Your task to perform on an android device: turn on showing notifications on the lock screen Image 0: 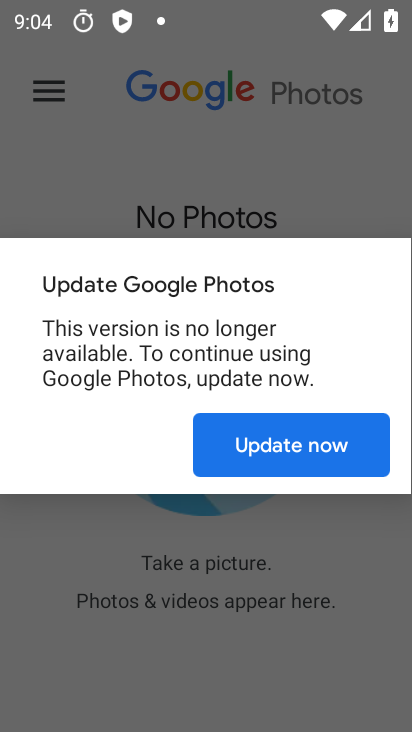
Step 0: press home button
Your task to perform on an android device: turn on showing notifications on the lock screen Image 1: 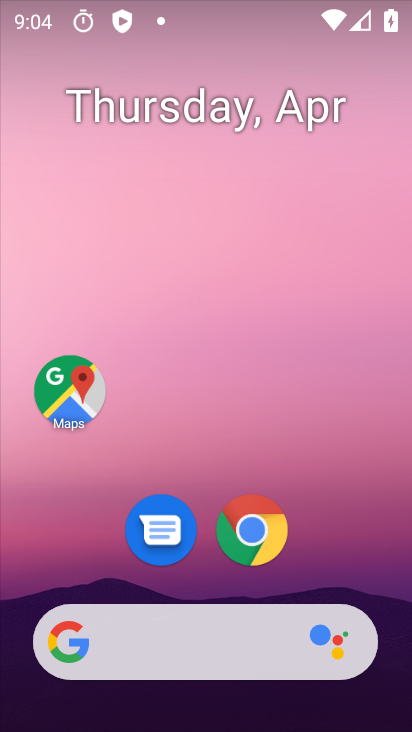
Step 1: drag from (374, 557) to (309, 111)
Your task to perform on an android device: turn on showing notifications on the lock screen Image 2: 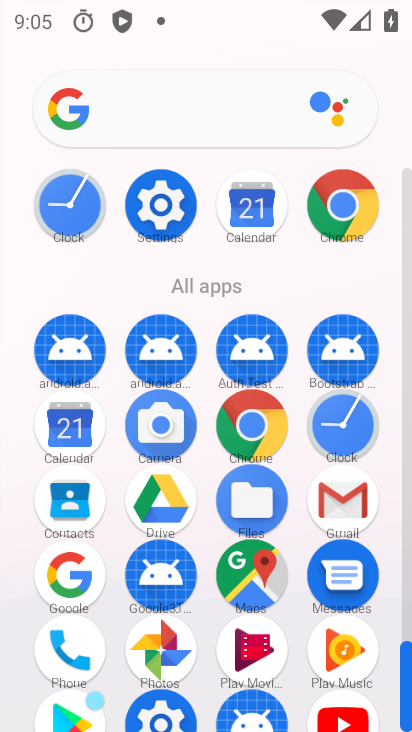
Step 2: click (158, 204)
Your task to perform on an android device: turn on showing notifications on the lock screen Image 3: 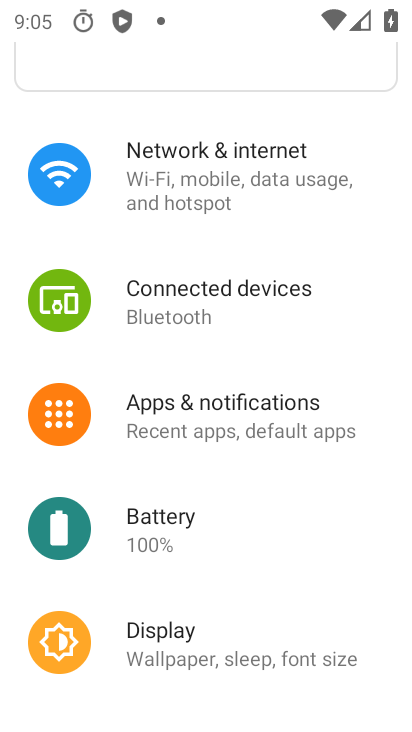
Step 3: click (247, 415)
Your task to perform on an android device: turn on showing notifications on the lock screen Image 4: 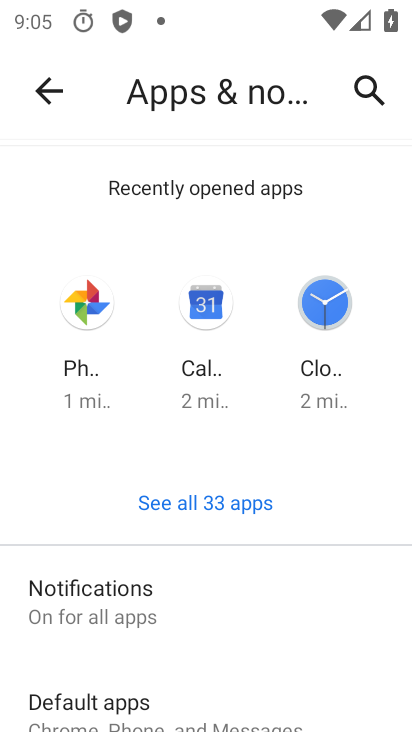
Step 4: click (117, 599)
Your task to perform on an android device: turn on showing notifications on the lock screen Image 5: 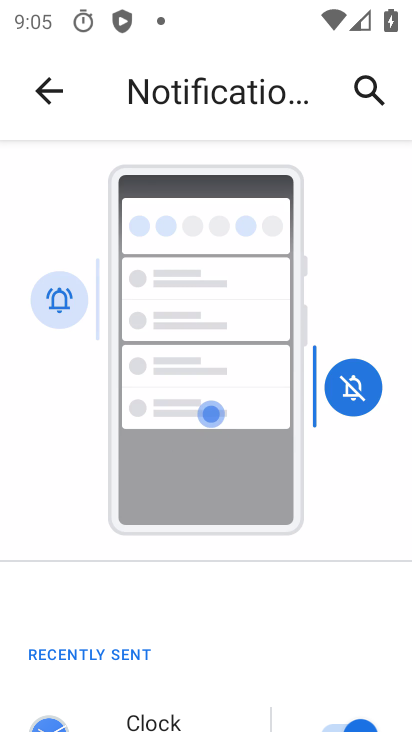
Step 5: drag from (333, 630) to (358, 178)
Your task to perform on an android device: turn on showing notifications on the lock screen Image 6: 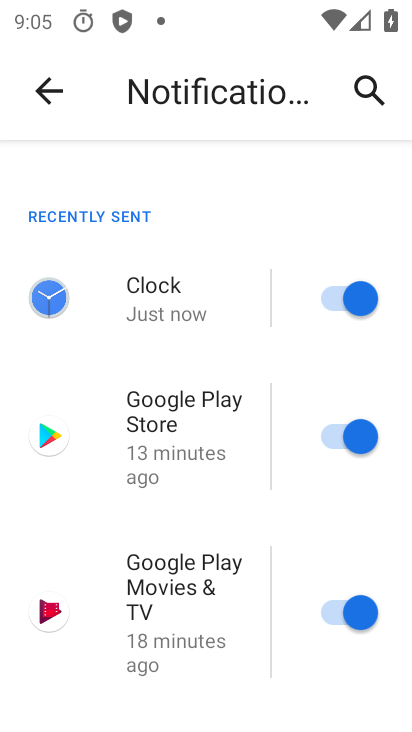
Step 6: drag from (284, 681) to (290, 221)
Your task to perform on an android device: turn on showing notifications on the lock screen Image 7: 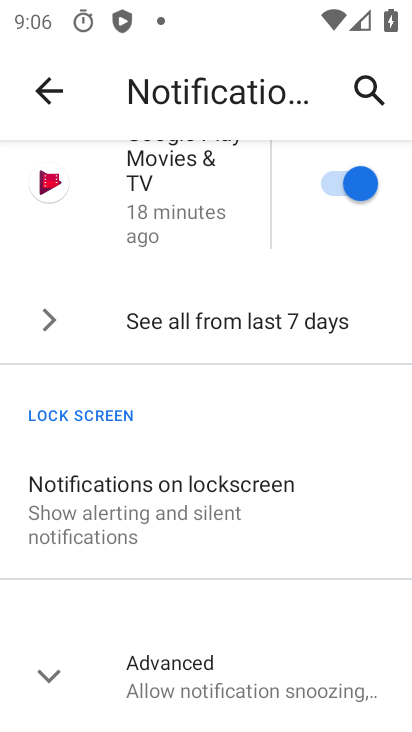
Step 7: click (263, 689)
Your task to perform on an android device: turn on showing notifications on the lock screen Image 8: 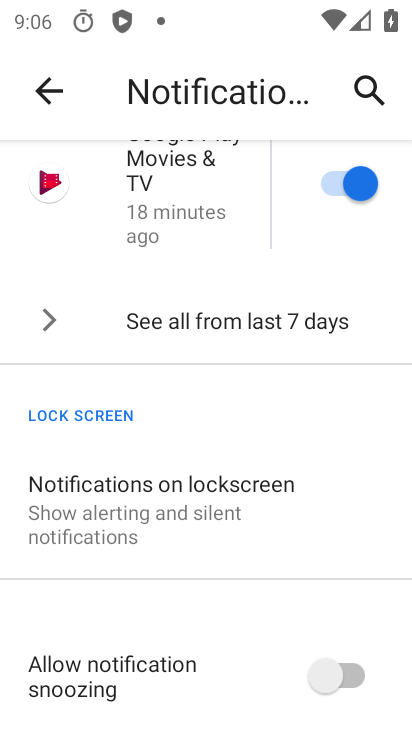
Step 8: click (187, 485)
Your task to perform on an android device: turn on showing notifications on the lock screen Image 9: 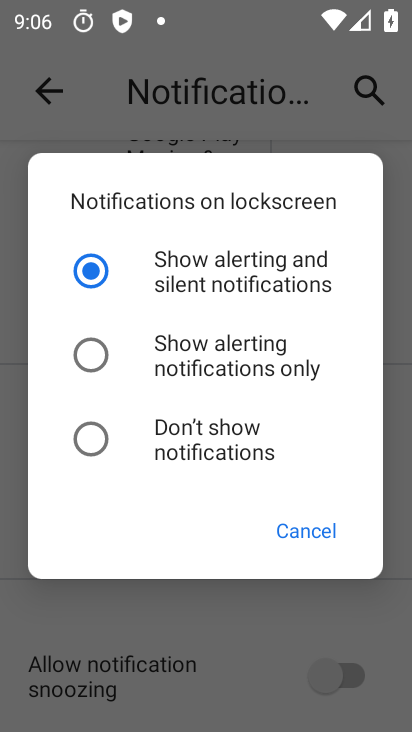
Step 9: click (212, 365)
Your task to perform on an android device: turn on showing notifications on the lock screen Image 10: 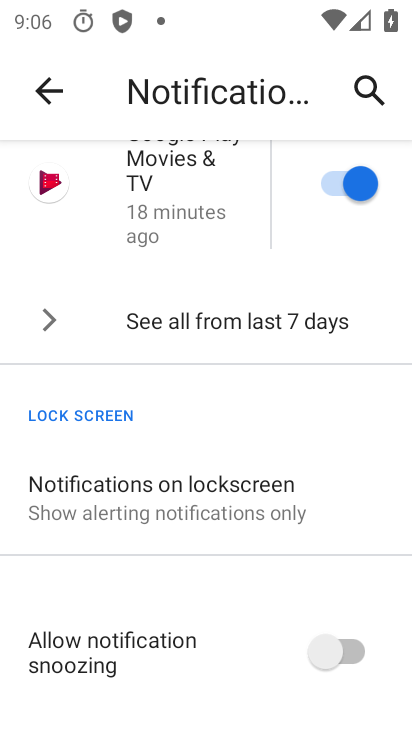
Step 10: task complete